Your task to perform on an android device: Open Yahoo.com Image 0: 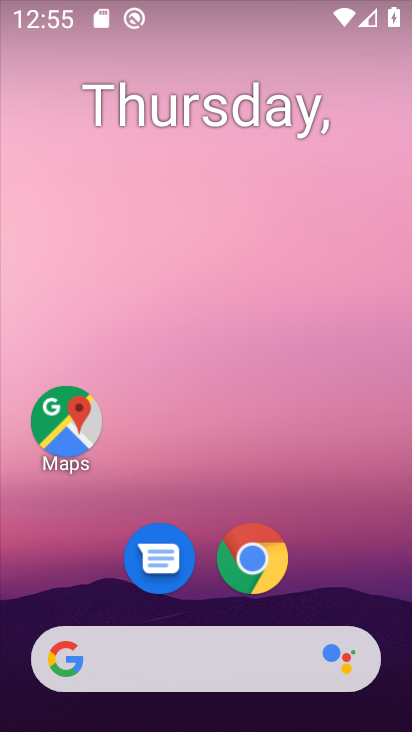
Step 0: click (266, 555)
Your task to perform on an android device: Open Yahoo.com Image 1: 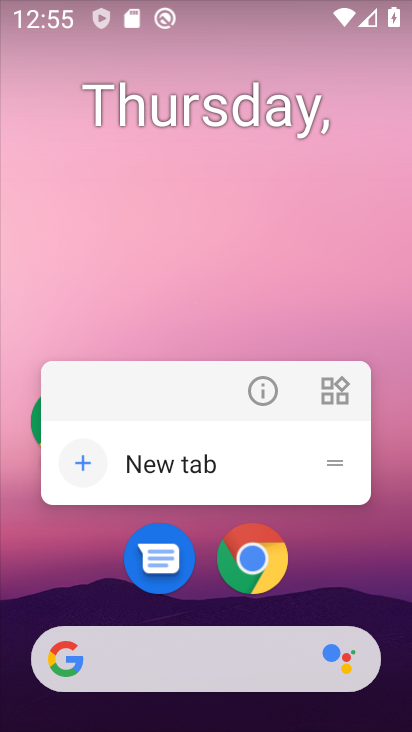
Step 1: click (266, 555)
Your task to perform on an android device: Open Yahoo.com Image 2: 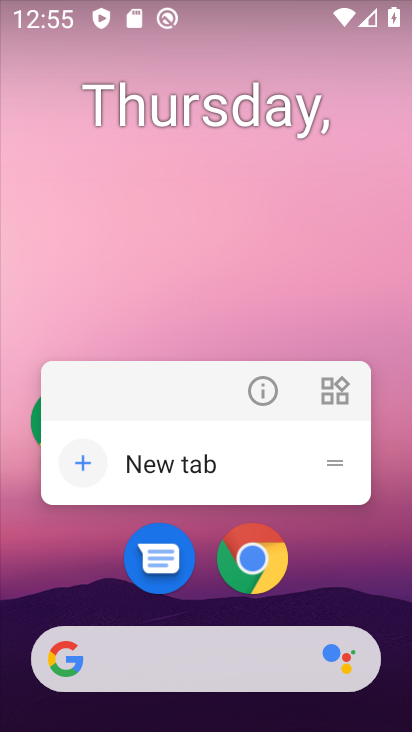
Step 2: click (244, 566)
Your task to perform on an android device: Open Yahoo.com Image 3: 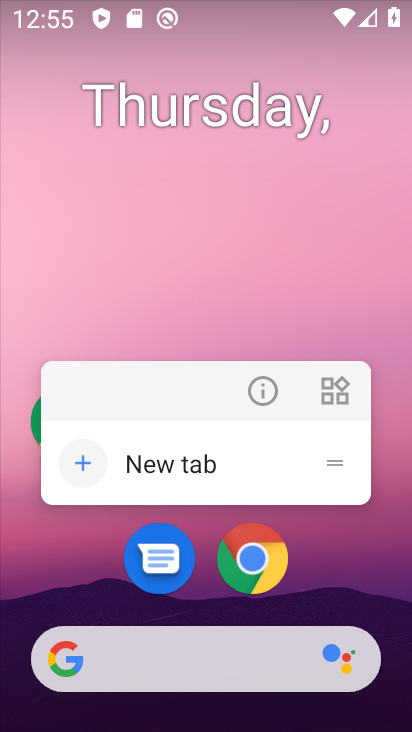
Step 3: click (244, 566)
Your task to perform on an android device: Open Yahoo.com Image 4: 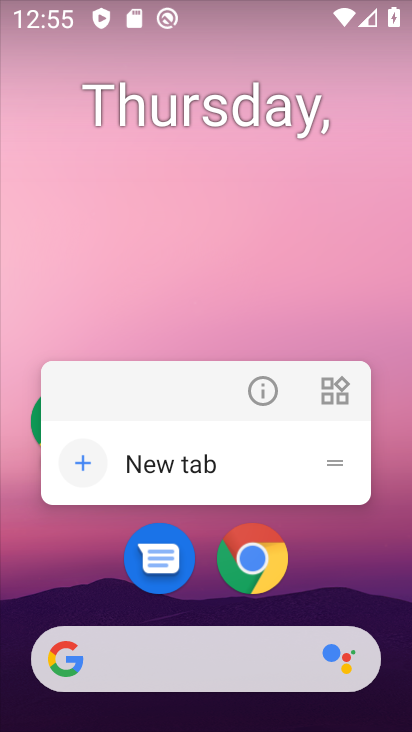
Step 4: click (265, 566)
Your task to perform on an android device: Open Yahoo.com Image 5: 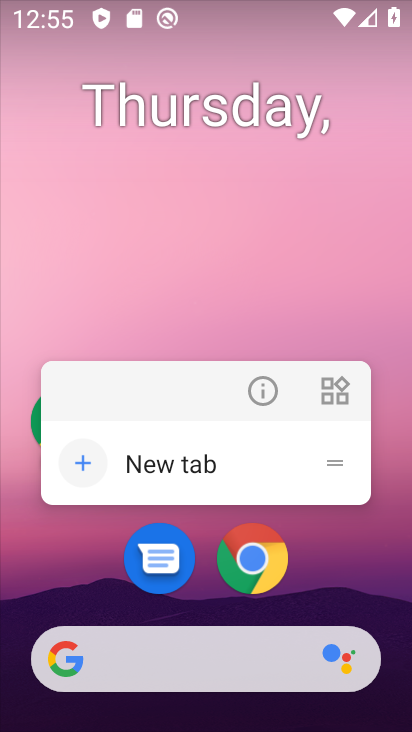
Step 5: click (340, 581)
Your task to perform on an android device: Open Yahoo.com Image 6: 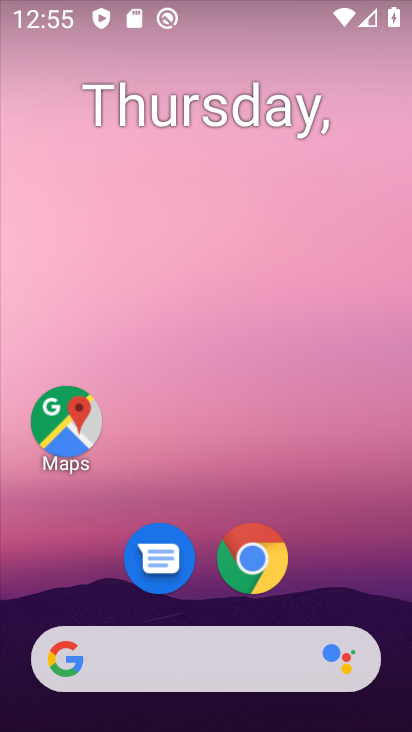
Step 6: drag from (340, 581) to (291, 131)
Your task to perform on an android device: Open Yahoo.com Image 7: 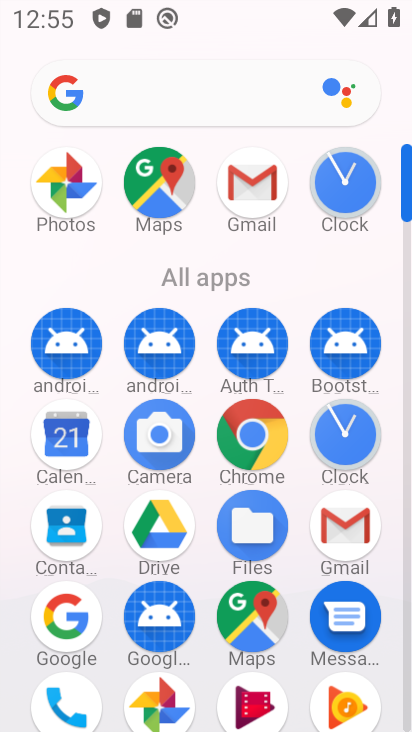
Step 7: click (262, 406)
Your task to perform on an android device: Open Yahoo.com Image 8: 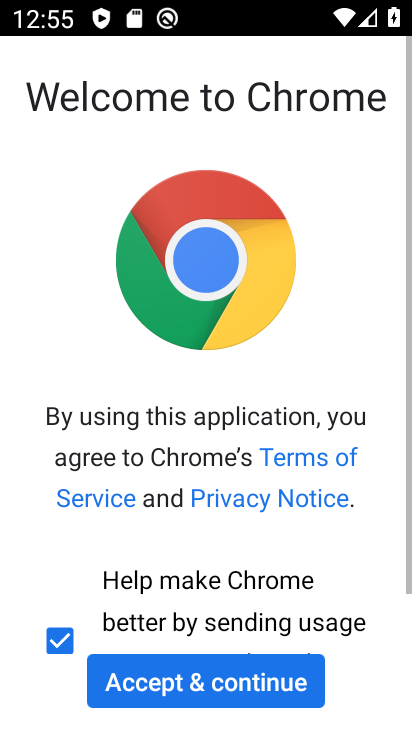
Step 8: click (214, 676)
Your task to perform on an android device: Open Yahoo.com Image 9: 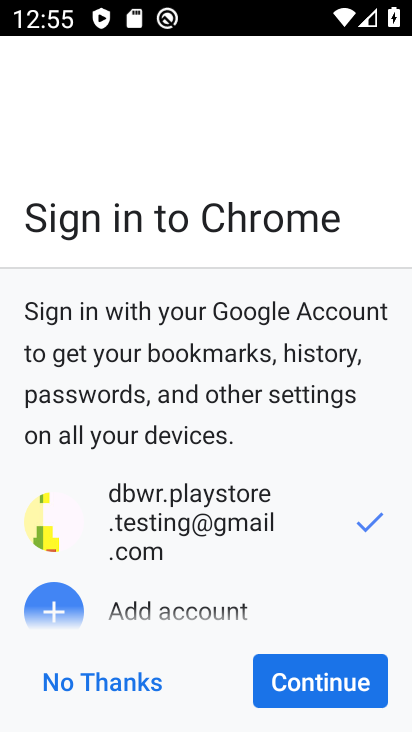
Step 9: click (314, 682)
Your task to perform on an android device: Open Yahoo.com Image 10: 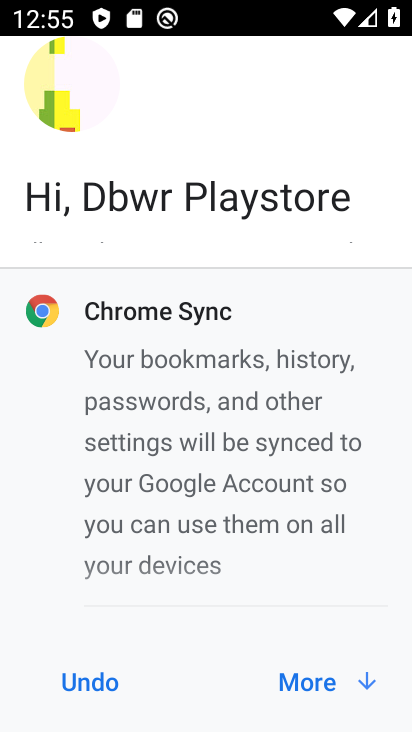
Step 10: click (314, 682)
Your task to perform on an android device: Open Yahoo.com Image 11: 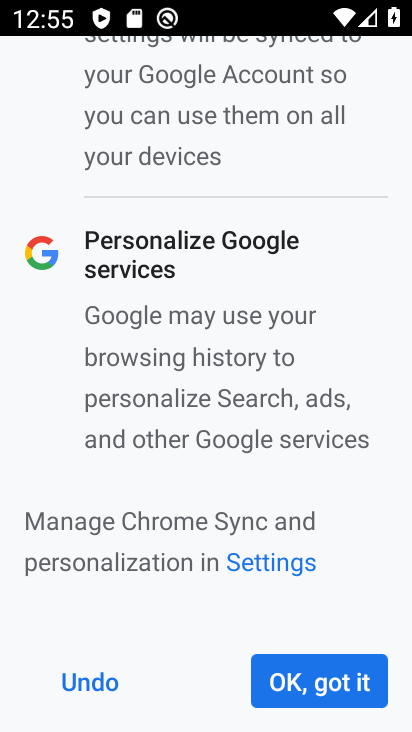
Step 11: click (314, 682)
Your task to perform on an android device: Open Yahoo.com Image 12: 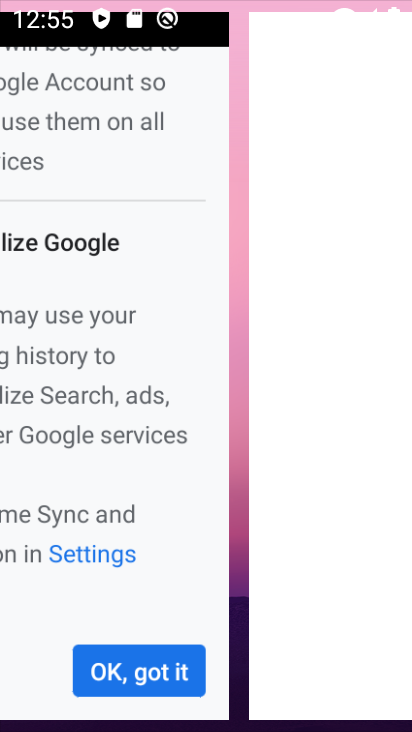
Step 12: click (314, 682)
Your task to perform on an android device: Open Yahoo.com Image 13: 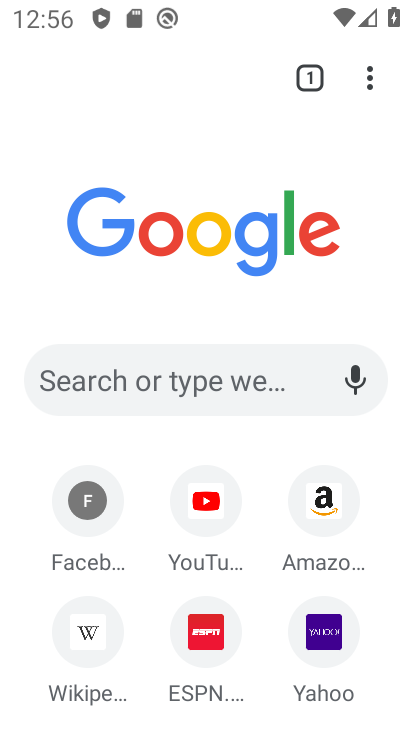
Step 13: click (312, 653)
Your task to perform on an android device: Open Yahoo.com Image 14: 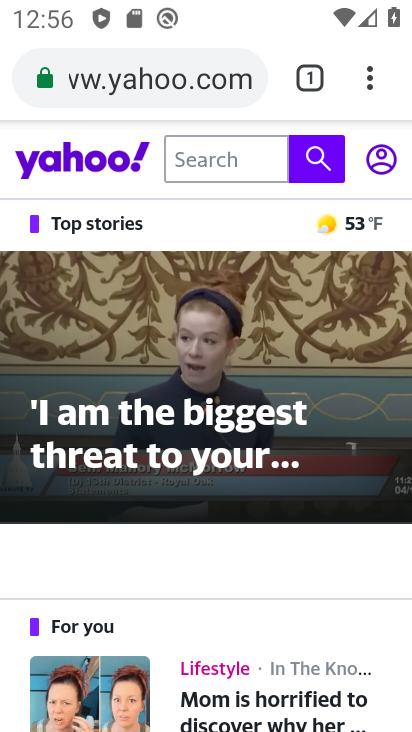
Step 14: task complete